Your task to perform on an android device: clear all cookies in the chrome app Image 0: 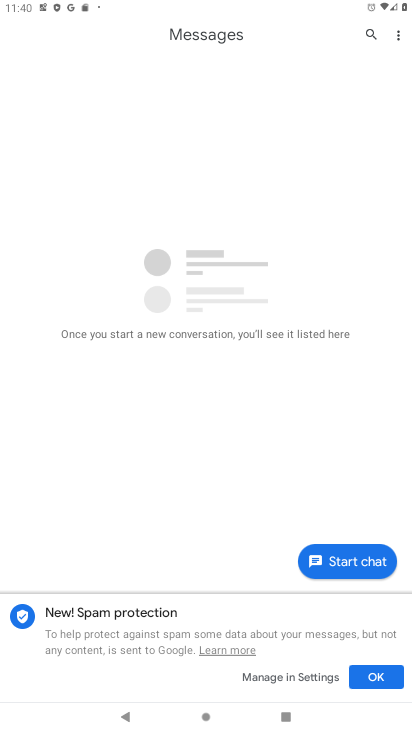
Step 0: press home button
Your task to perform on an android device: clear all cookies in the chrome app Image 1: 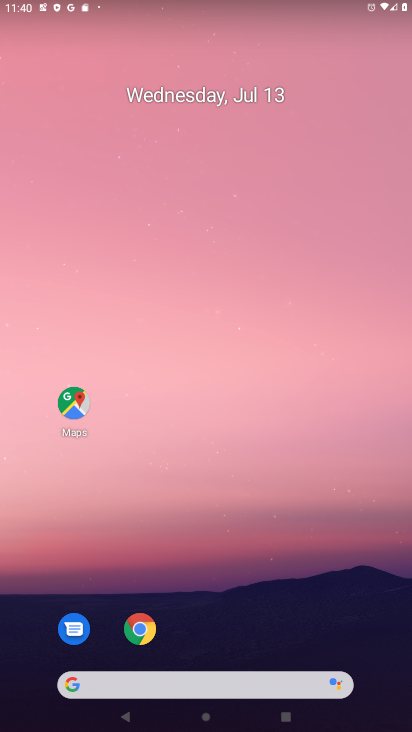
Step 1: click (231, 645)
Your task to perform on an android device: clear all cookies in the chrome app Image 2: 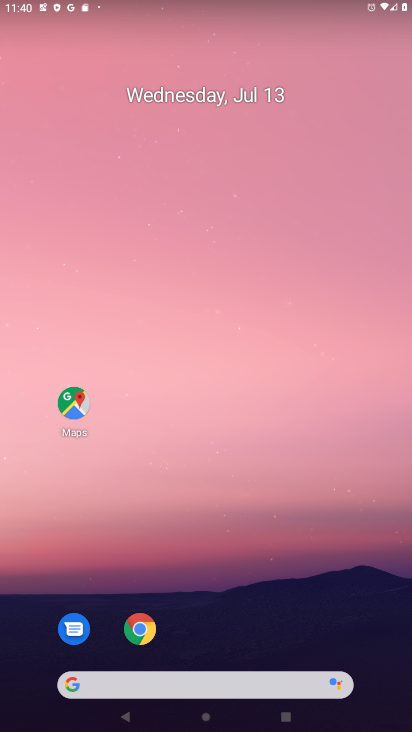
Step 2: click (153, 619)
Your task to perform on an android device: clear all cookies in the chrome app Image 3: 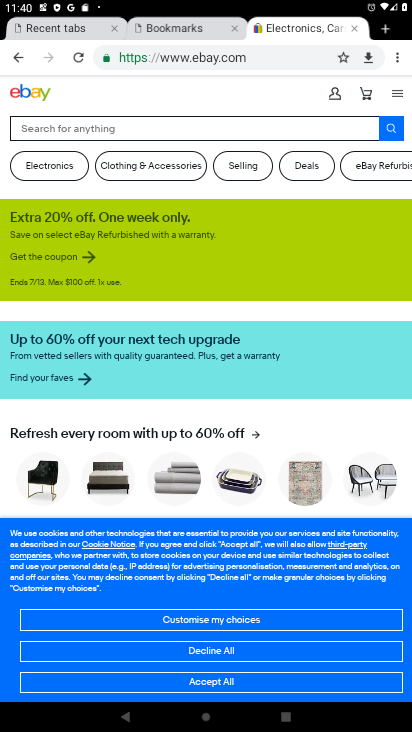
Step 3: click (409, 55)
Your task to perform on an android device: clear all cookies in the chrome app Image 4: 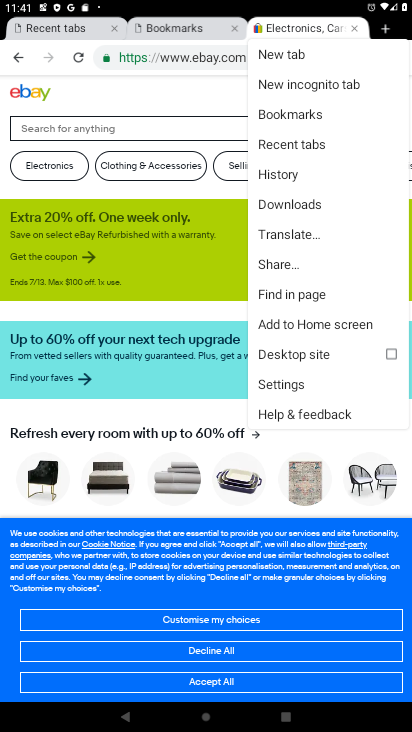
Step 4: click (315, 390)
Your task to perform on an android device: clear all cookies in the chrome app Image 5: 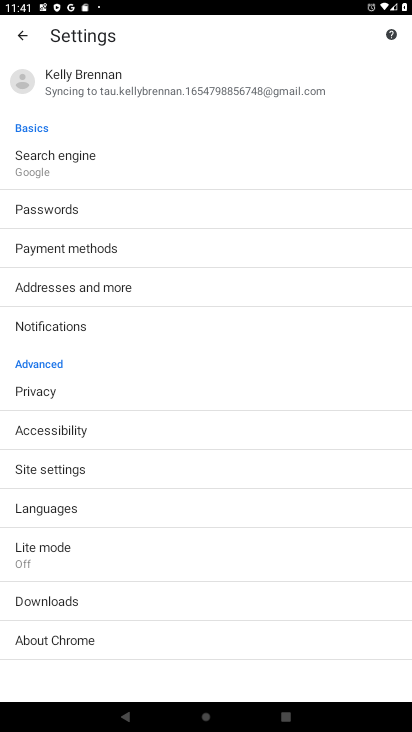
Step 5: task complete